Your task to perform on an android device: check android version Image 0: 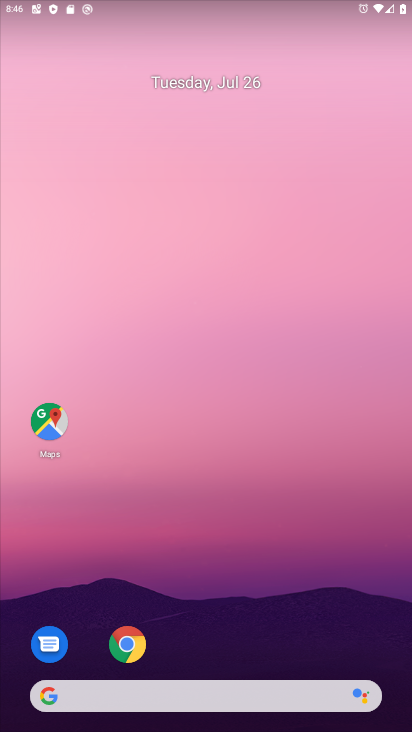
Step 0: drag from (181, 644) to (185, 229)
Your task to perform on an android device: check android version Image 1: 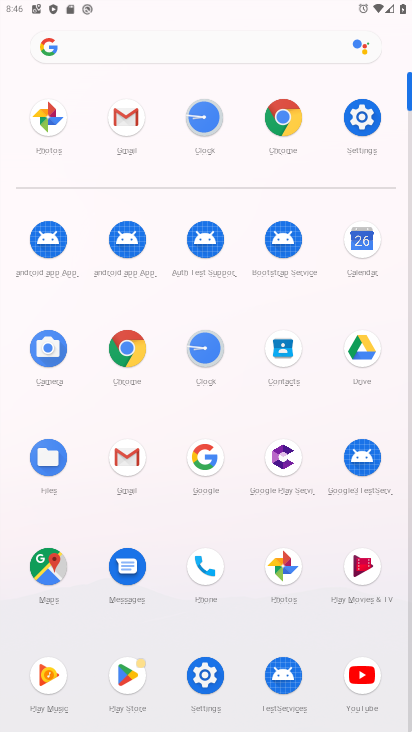
Step 1: click (352, 112)
Your task to perform on an android device: check android version Image 2: 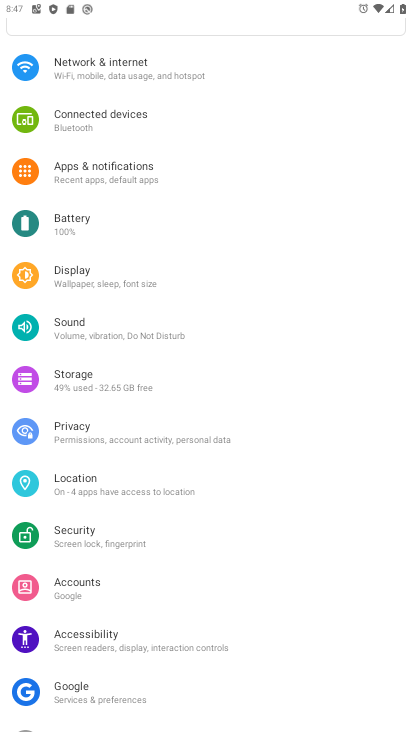
Step 2: drag from (166, 664) to (185, 97)
Your task to perform on an android device: check android version Image 3: 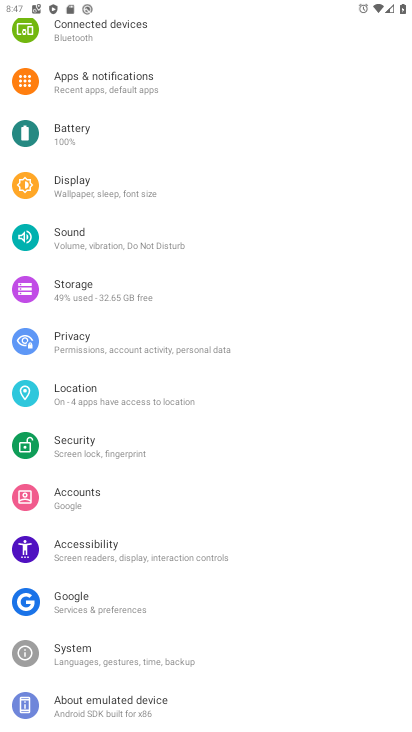
Step 3: click (142, 712)
Your task to perform on an android device: check android version Image 4: 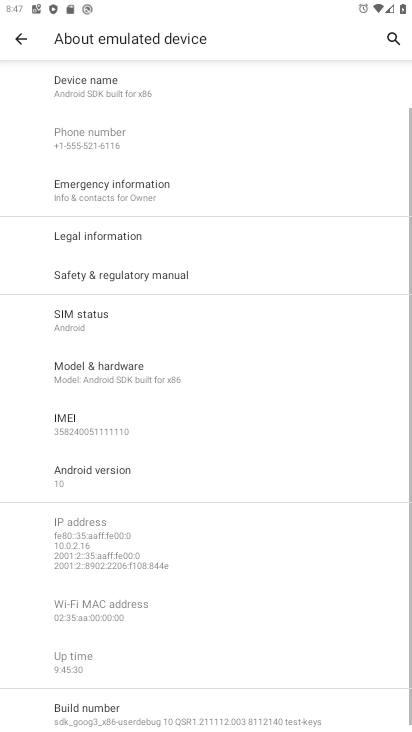
Step 4: click (99, 482)
Your task to perform on an android device: check android version Image 5: 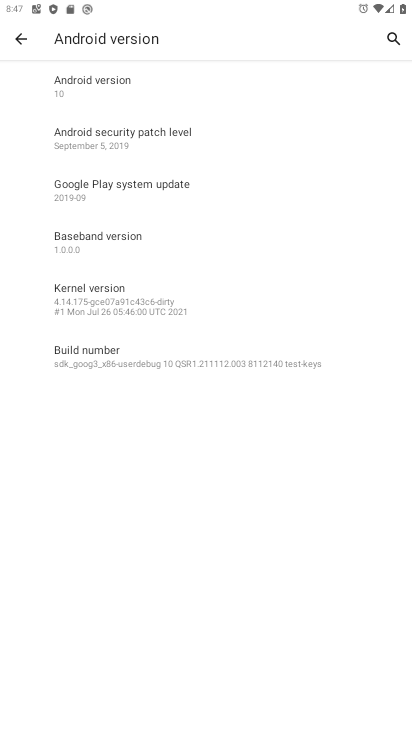
Step 5: task complete